Your task to perform on an android device: allow notifications from all sites in the chrome app Image 0: 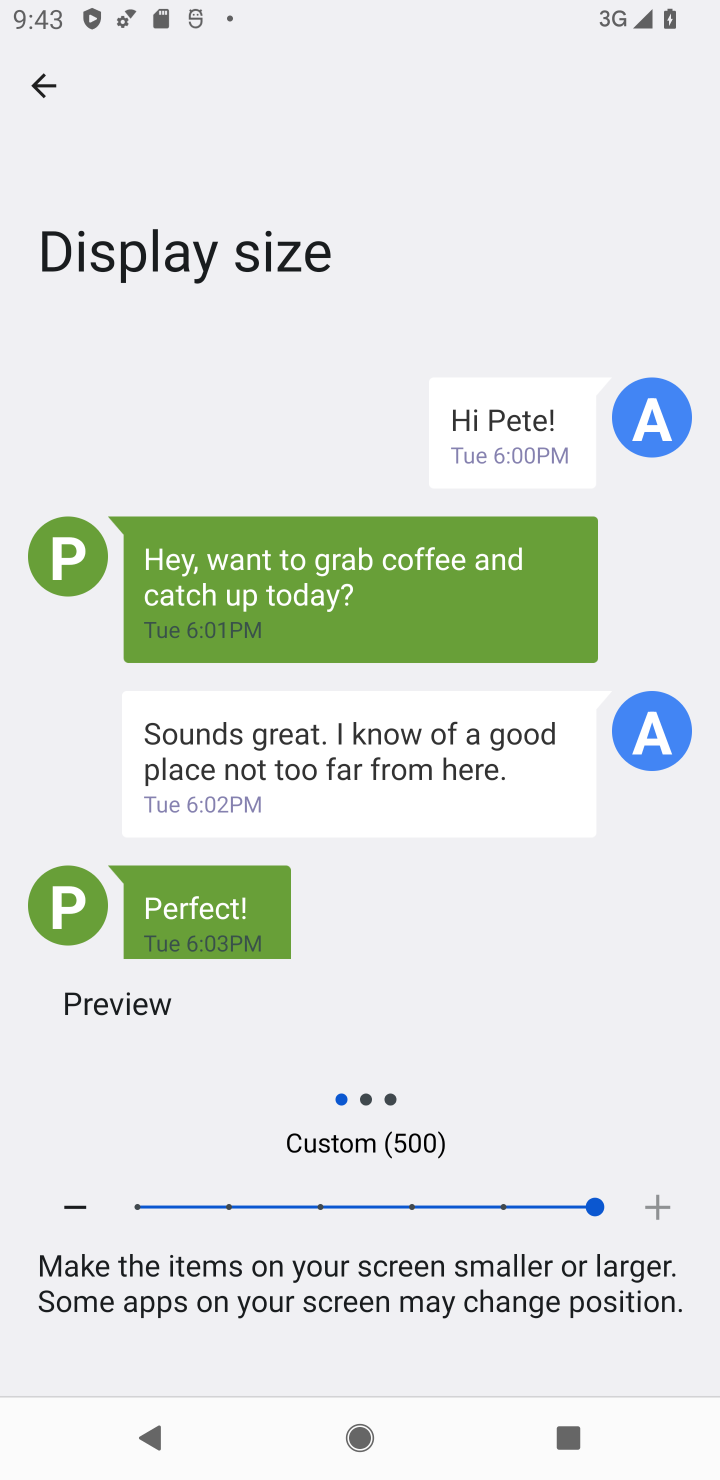
Step 0: press home button
Your task to perform on an android device: allow notifications from all sites in the chrome app Image 1: 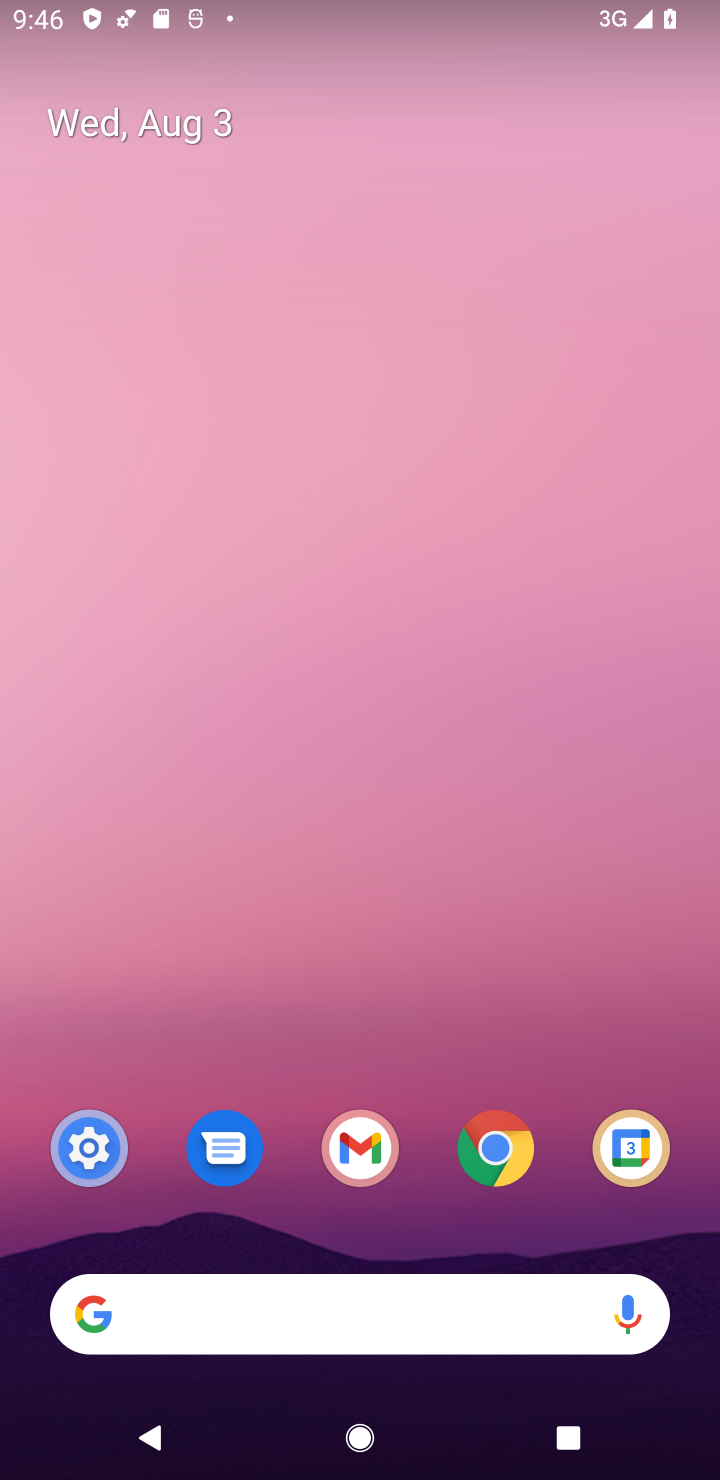
Step 1: drag from (239, 611) to (243, 119)
Your task to perform on an android device: allow notifications from all sites in the chrome app Image 2: 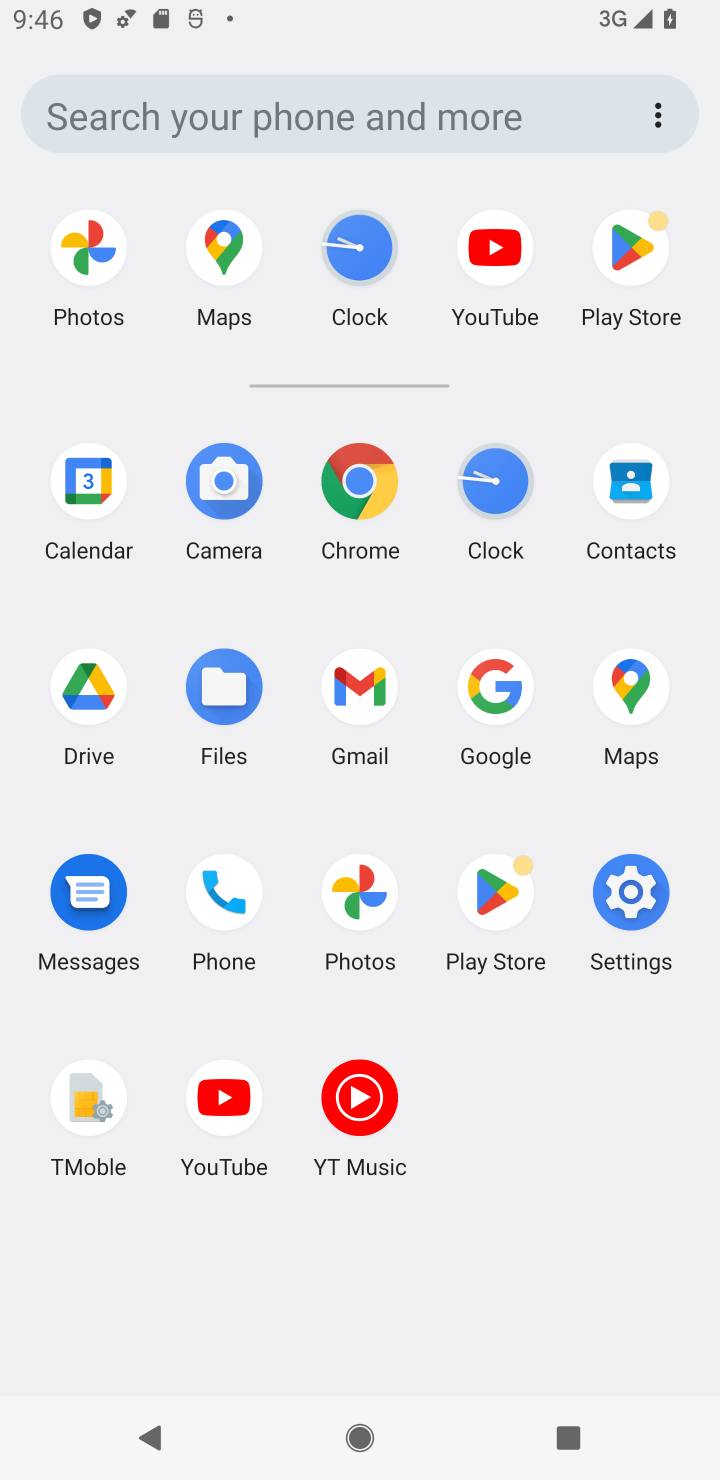
Step 2: click (367, 501)
Your task to perform on an android device: allow notifications from all sites in the chrome app Image 3: 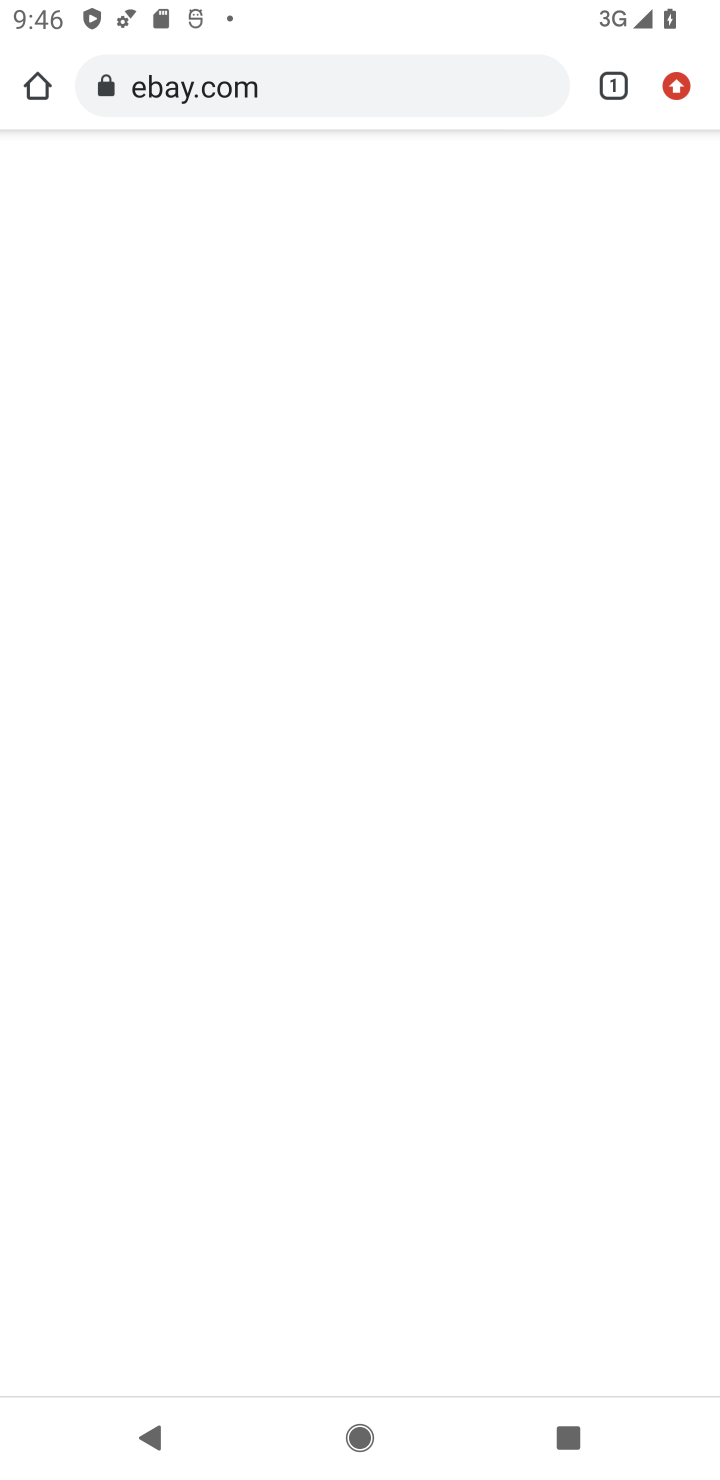
Step 3: task complete